Your task to perform on an android device: search for starred emails in the gmail app Image 0: 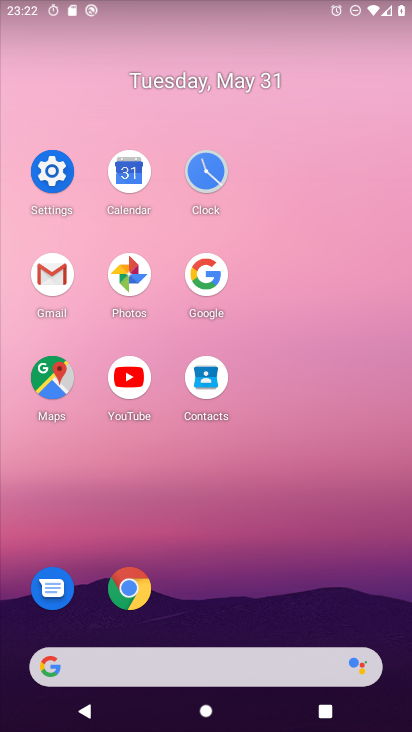
Step 0: click (55, 290)
Your task to perform on an android device: search for starred emails in the gmail app Image 1: 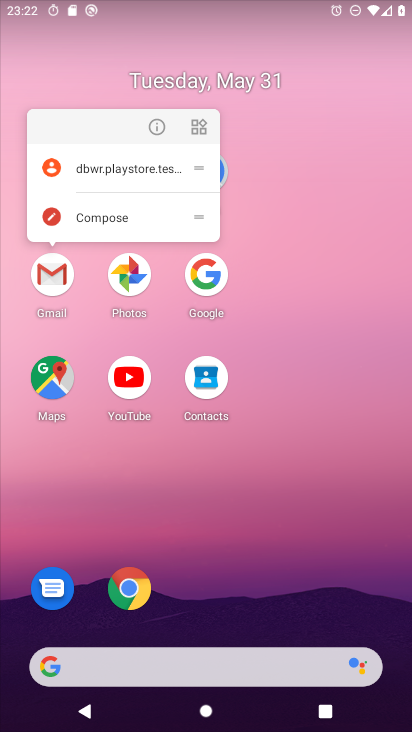
Step 1: click (65, 286)
Your task to perform on an android device: search for starred emails in the gmail app Image 2: 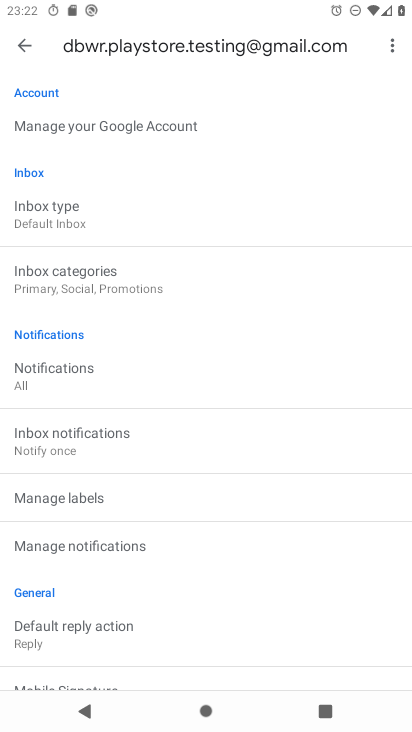
Step 2: click (25, 53)
Your task to perform on an android device: search for starred emails in the gmail app Image 3: 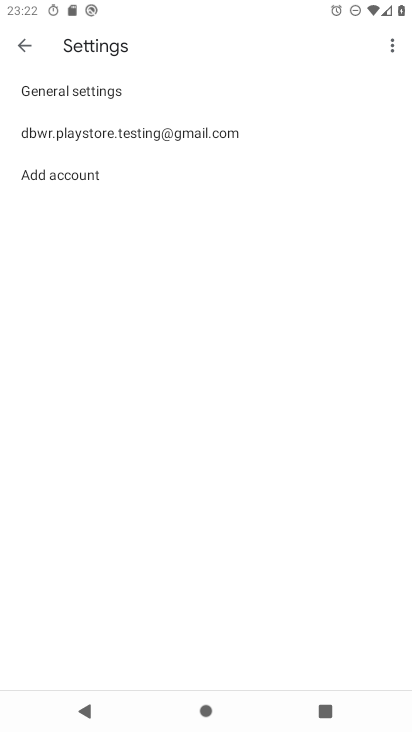
Step 3: click (23, 53)
Your task to perform on an android device: search for starred emails in the gmail app Image 4: 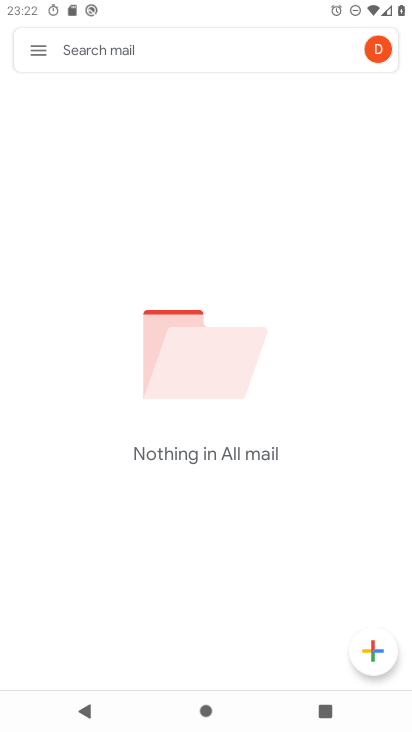
Step 4: click (18, 47)
Your task to perform on an android device: search for starred emails in the gmail app Image 5: 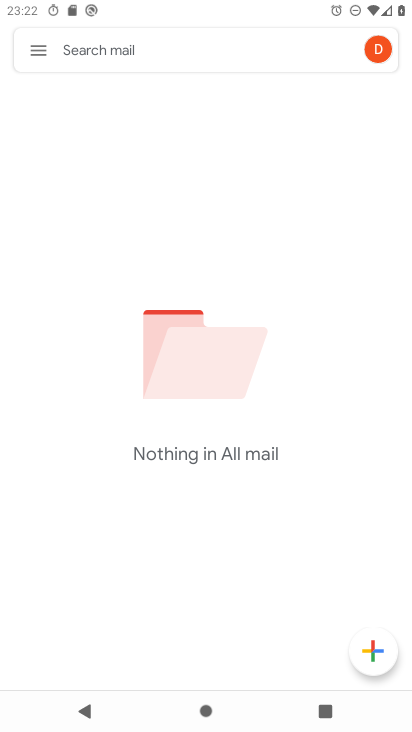
Step 5: click (33, 45)
Your task to perform on an android device: search for starred emails in the gmail app Image 6: 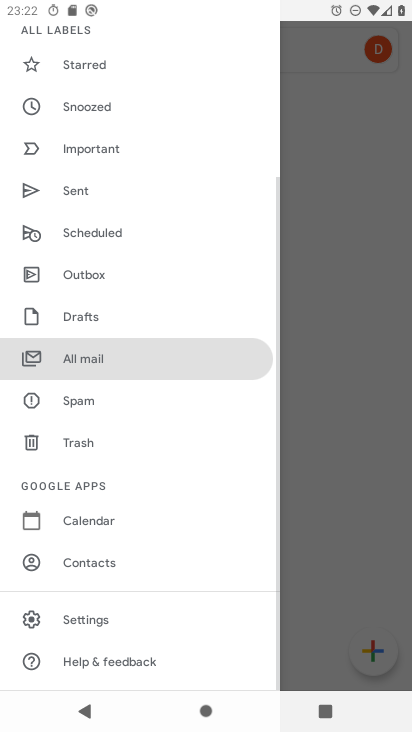
Step 6: click (178, 365)
Your task to perform on an android device: search for starred emails in the gmail app Image 7: 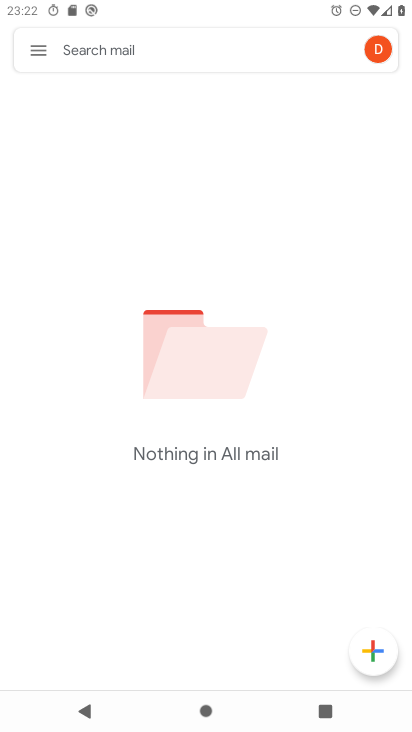
Step 7: click (24, 48)
Your task to perform on an android device: search for starred emails in the gmail app Image 8: 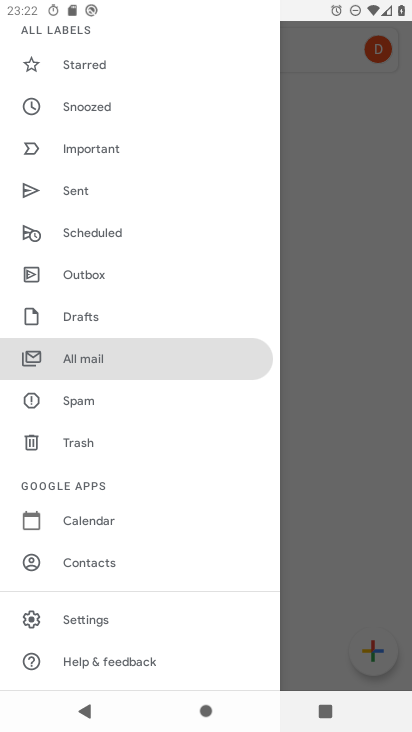
Step 8: click (130, 62)
Your task to perform on an android device: search for starred emails in the gmail app Image 9: 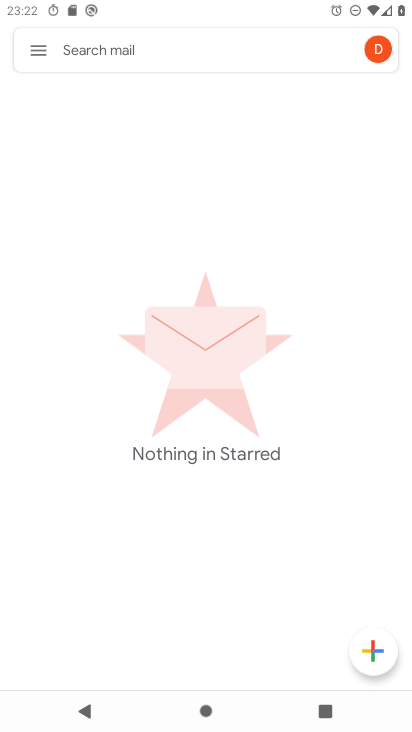
Step 9: task complete